Your task to perform on an android device: What's the weather going to be this weekend? Image 0: 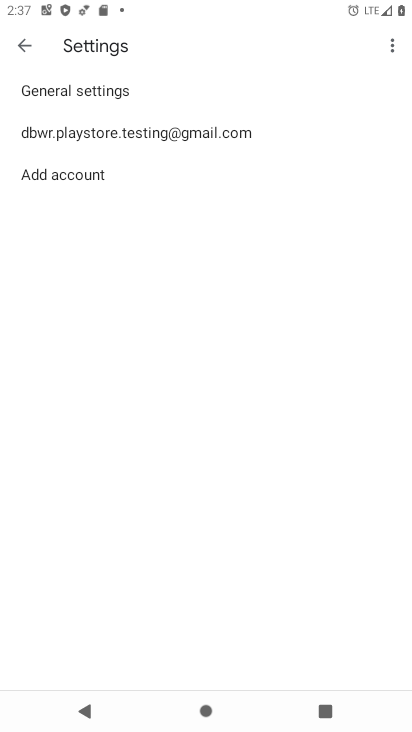
Step 0: press home button
Your task to perform on an android device: What's the weather going to be this weekend? Image 1: 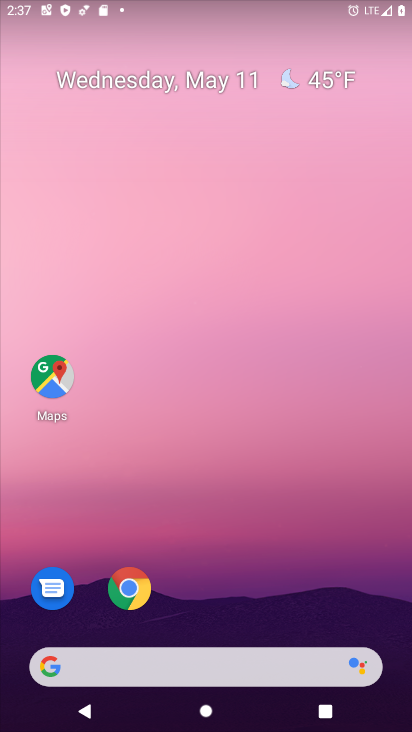
Step 1: drag from (249, 605) to (249, 231)
Your task to perform on an android device: What's the weather going to be this weekend? Image 2: 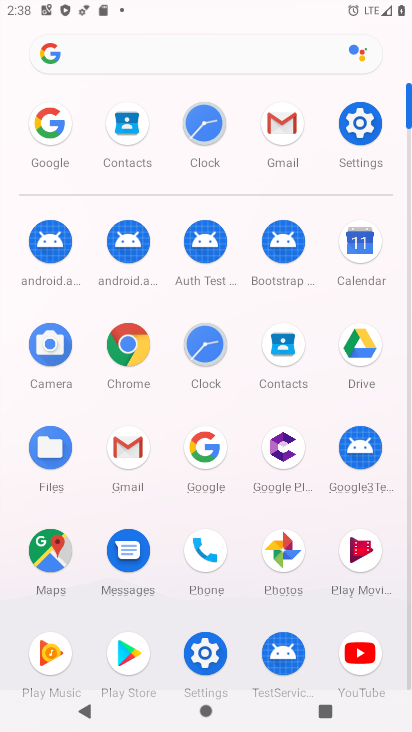
Step 2: click (203, 446)
Your task to perform on an android device: What's the weather going to be this weekend? Image 3: 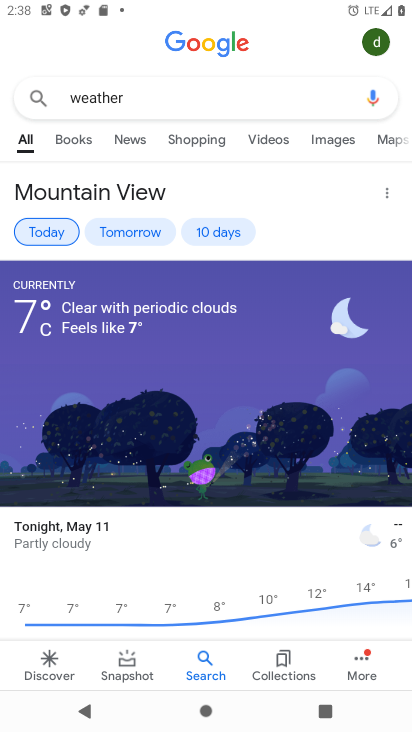
Step 3: click (151, 230)
Your task to perform on an android device: What's the weather going to be this weekend? Image 4: 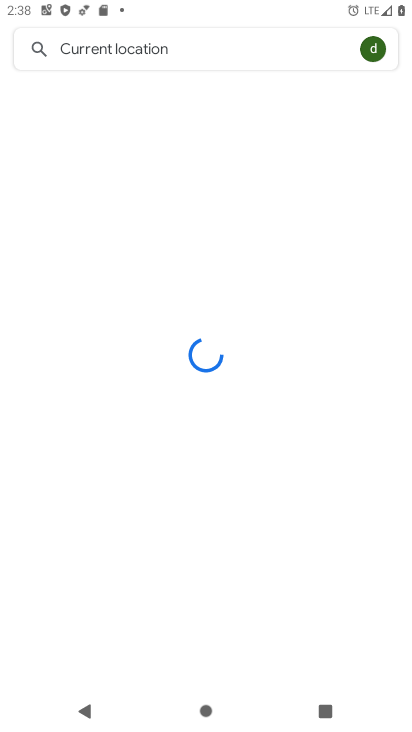
Step 4: click (223, 233)
Your task to perform on an android device: What's the weather going to be this weekend? Image 5: 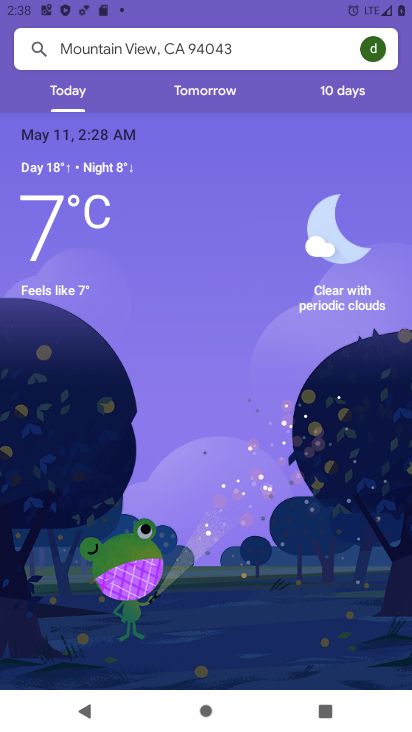
Step 5: click (316, 88)
Your task to perform on an android device: What's the weather going to be this weekend? Image 6: 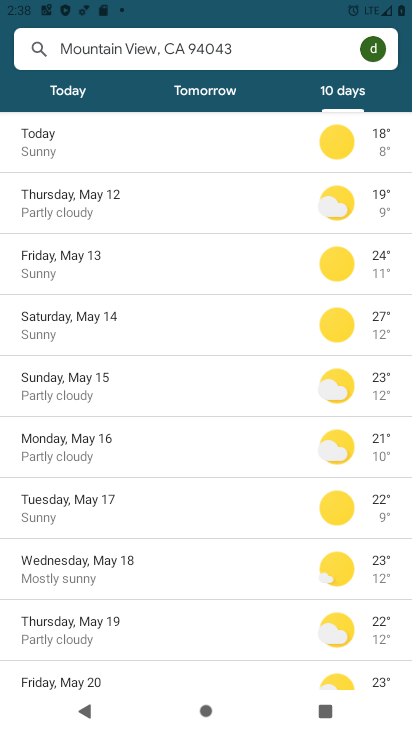
Step 6: task complete